Your task to perform on an android device: check google app version Image 0: 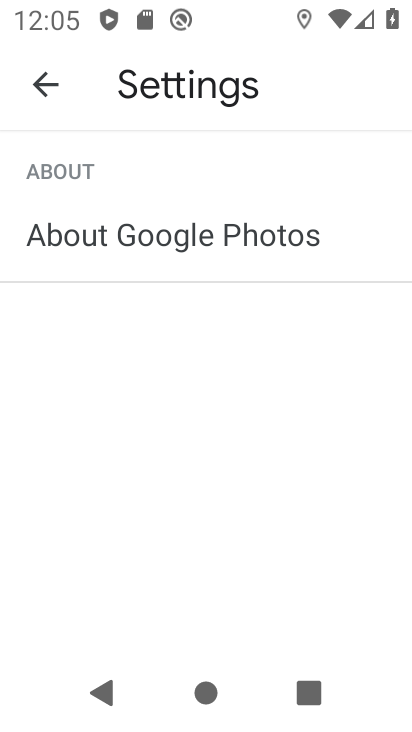
Step 0: press home button
Your task to perform on an android device: check google app version Image 1: 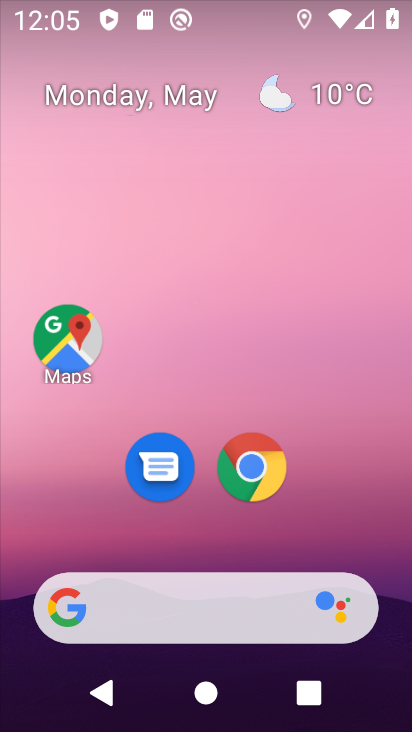
Step 1: drag from (357, 520) to (356, 82)
Your task to perform on an android device: check google app version Image 2: 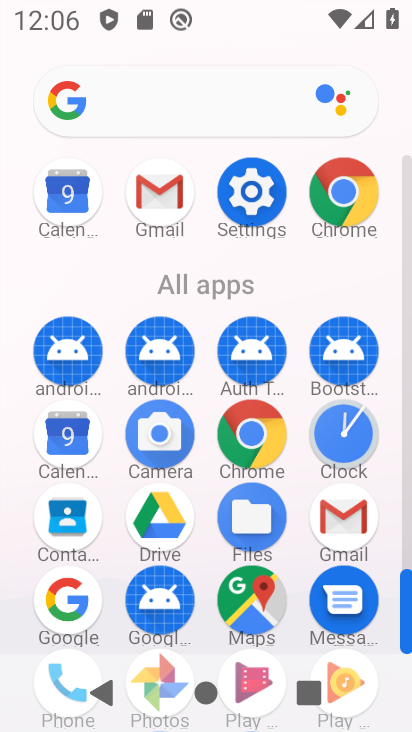
Step 2: click (57, 608)
Your task to perform on an android device: check google app version Image 3: 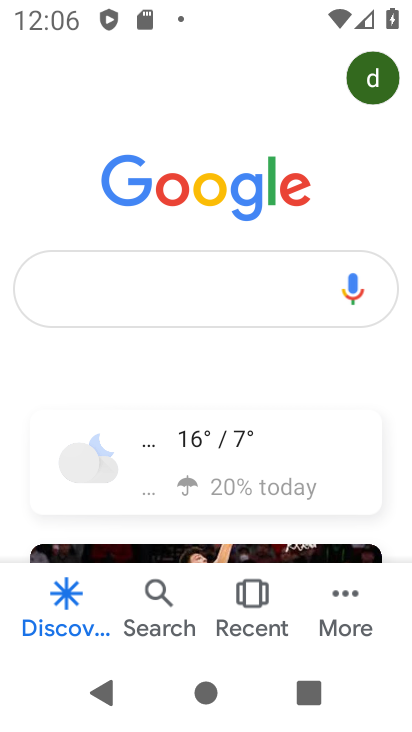
Step 3: click (341, 620)
Your task to perform on an android device: check google app version Image 4: 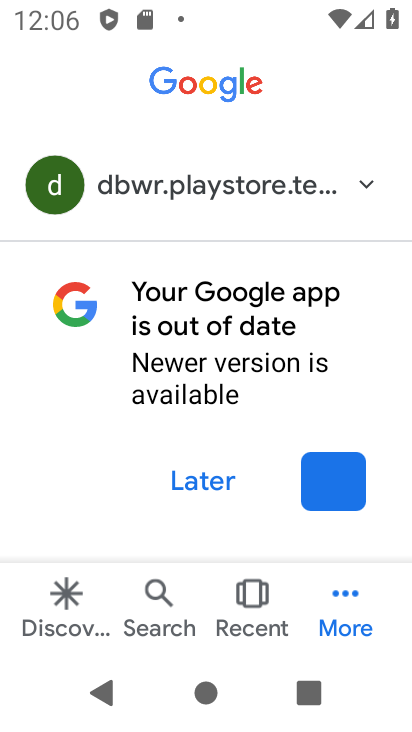
Step 4: click (198, 487)
Your task to perform on an android device: check google app version Image 5: 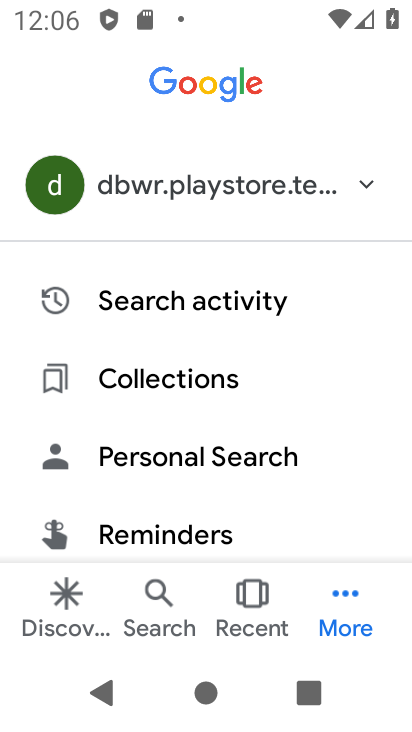
Step 5: drag from (315, 517) to (340, 261)
Your task to perform on an android device: check google app version Image 6: 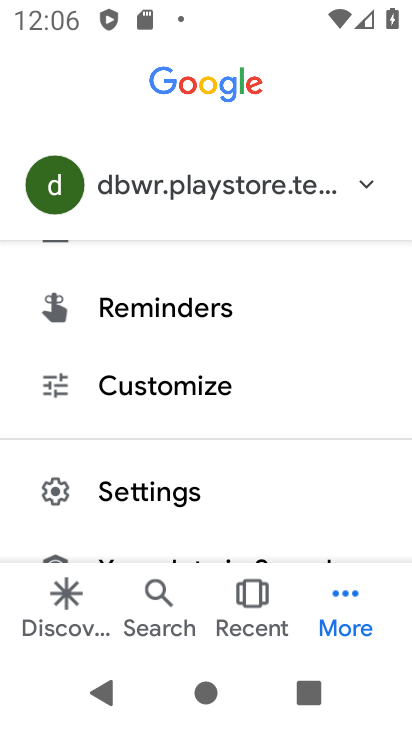
Step 6: click (199, 487)
Your task to perform on an android device: check google app version Image 7: 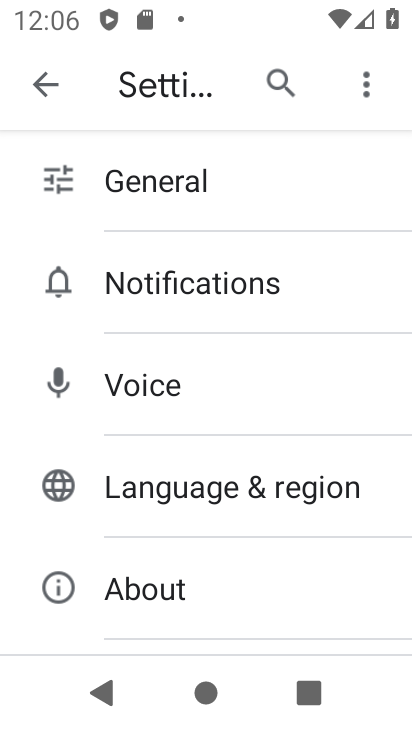
Step 7: drag from (290, 612) to (310, 229)
Your task to perform on an android device: check google app version Image 8: 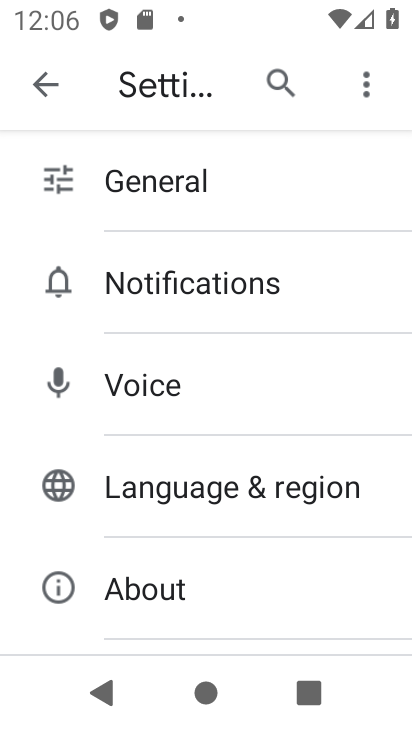
Step 8: click (65, 590)
Your task to perform on an android device: check google app version Image 9: 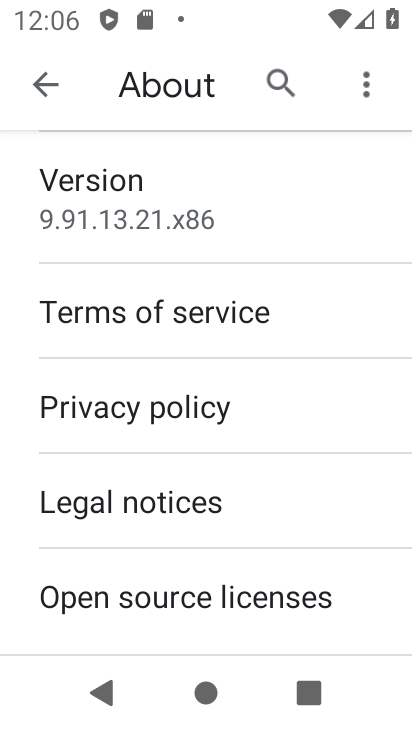
Step 9: task complete